Your task to perform on an android device: Show me productivity apps on the Play Store Image 0: 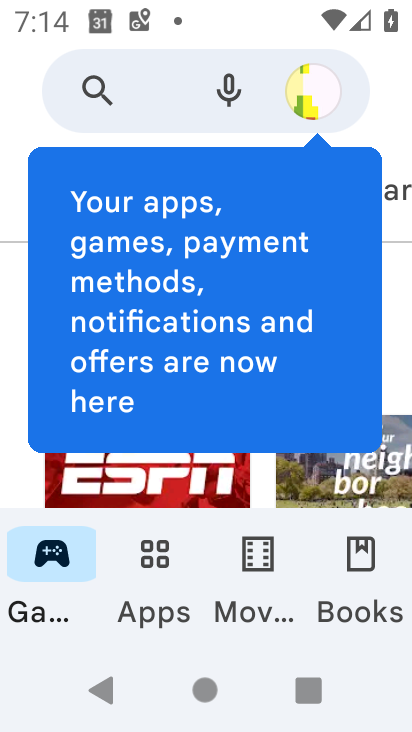
Step 0: press home button
Your task to perform on an android device: Show me productivity apps on the Play Store Image 1: 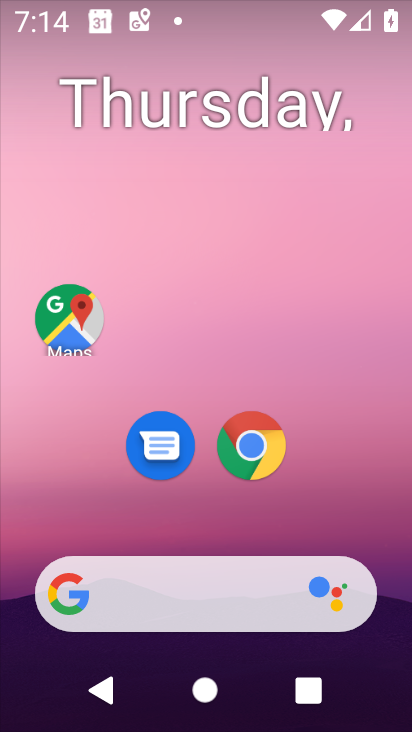
Step 1: drag from (399, 641) to (313, 4)
Your task to perform on an android device: Show me productivity apps on the Play Store Image 2: 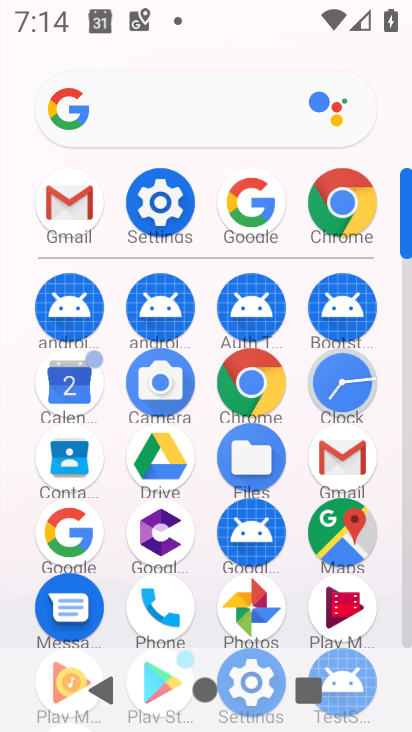
Step 2: drag from (119, 624) to (109, 178)
Your task to perform on an android device: Show me productivity apps on the Play Store Image 3: 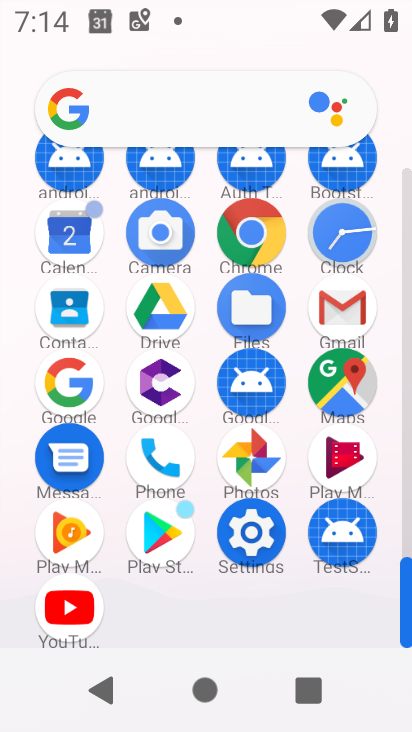
Step 3: click (148, 525)
Your task to perform on an android device: Show me productivity apps on the Play Store Image 4: 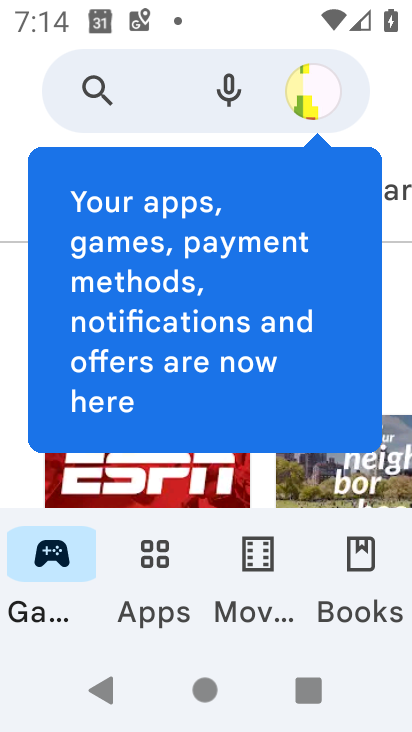
Step 4: click (153, 581)
Your task to perform on an android device: Show me productivity apps on the Play Store Image 5: 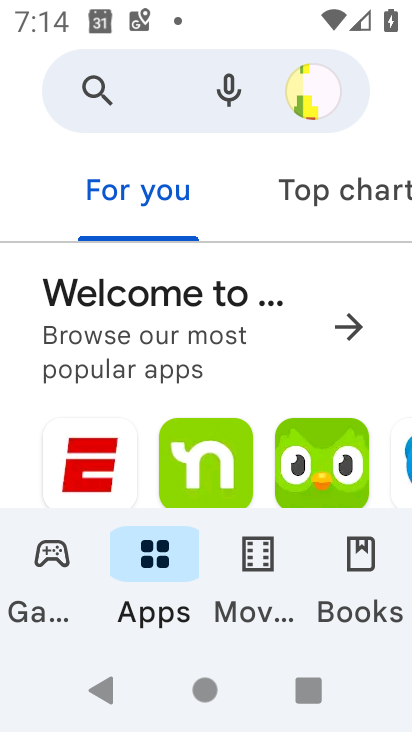
Step 5: task complete